Your task to perform on an android device: Search for seafood restaurants on Google Maps Image 0: 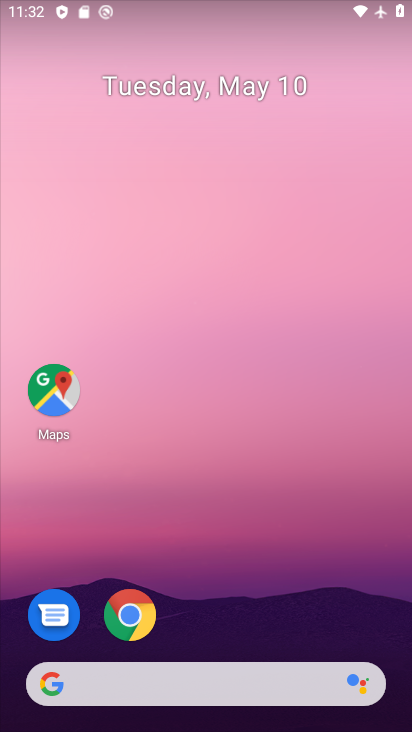
Step 0: drag from (270, 528) to (214, 3)
Your task to perform on an android device: Search for seafood restaurants on Google Maps Image 1: 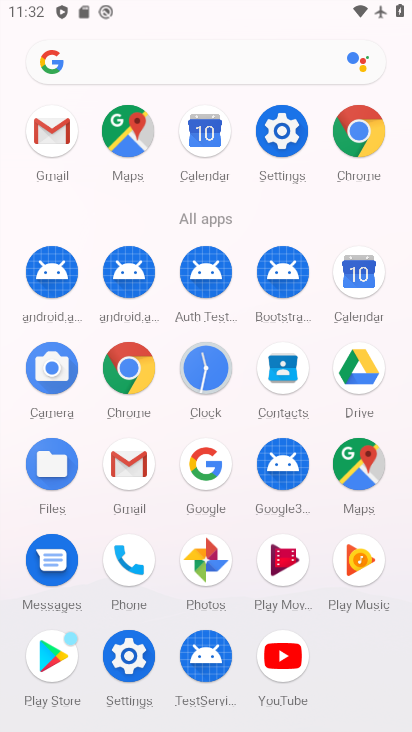
Step 1: drag from (9, 574) to (5, 193)
Your task to perform on an android device: Search for seafood restaurants on Google Maps Image 2: 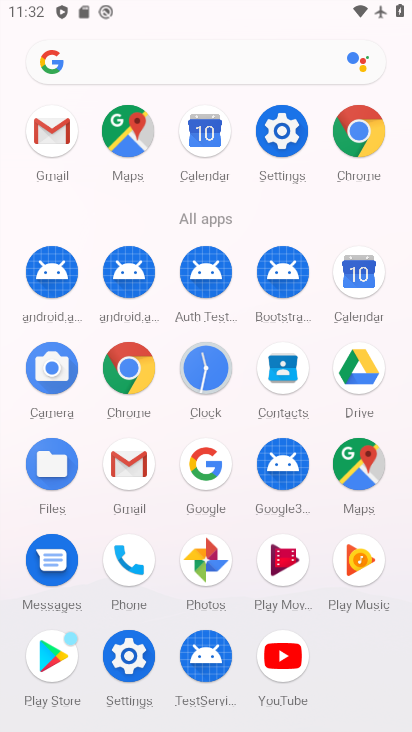
Step 2: click (356, 463)
Your task to perform on an android device: Search for seafood restaurants on Google Maps Image 3: 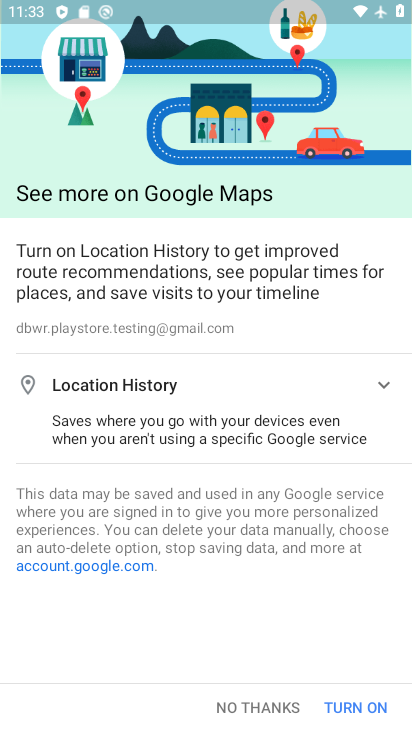
Step 3: click (359, 699)
Your task to perform on an android device: Search for seafood restaurants on Google Maps Image 4: 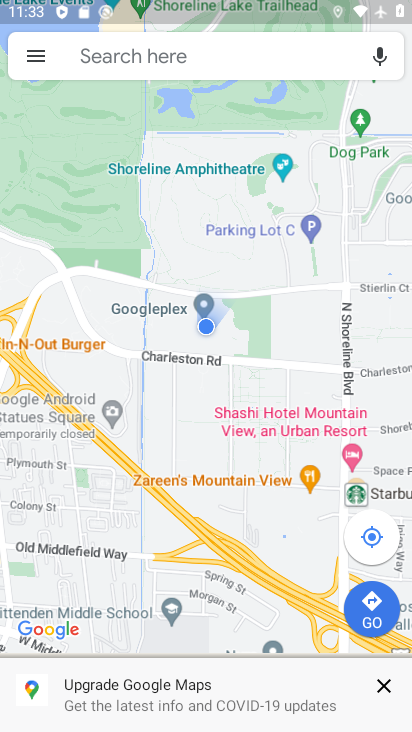
Step 4: click (196, 54)
Your task to perform on an android device: Search for seafood restaurants on Google Maps Image 5: 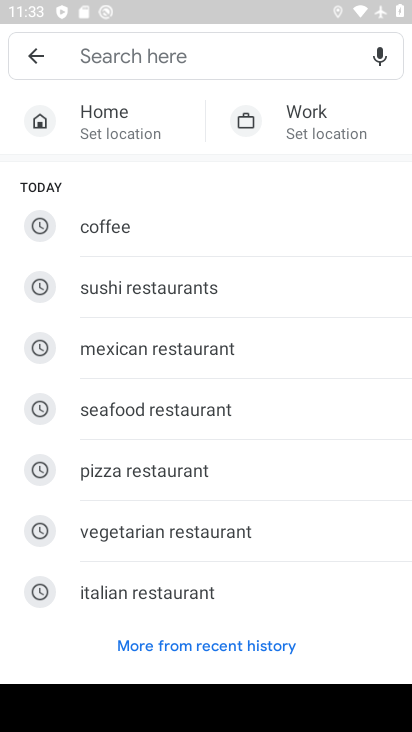
Step 5: click (176, 421)
Your task to perform on an android device: Search for seafood restaurants on Google Maps Image 6: 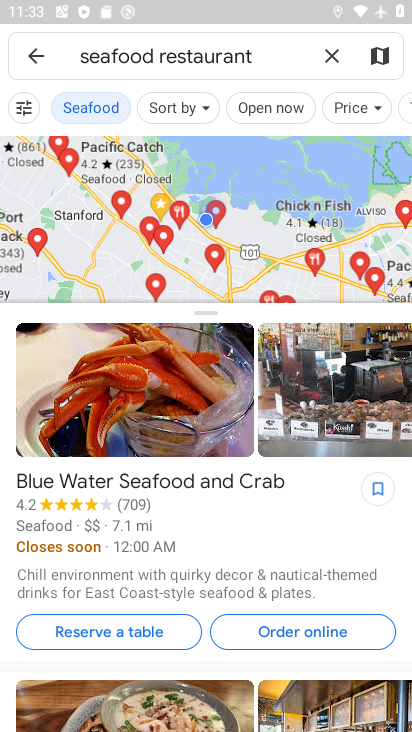
Step 6: task complete